Your task to perform on an android device: Open maps Image 0: 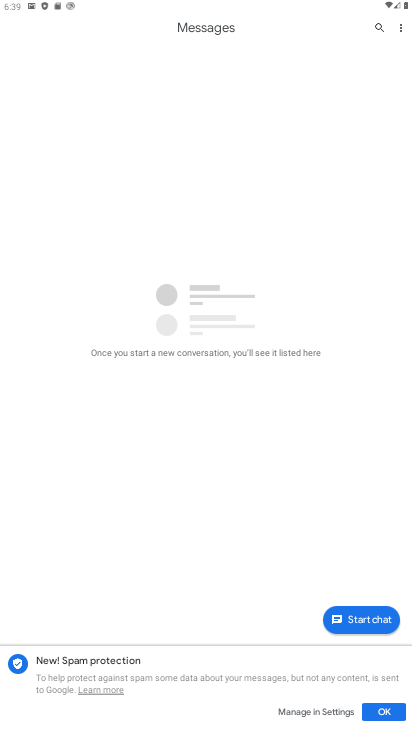
Step 0: press home button
Your task to perform on an android device: Open maps Image 1: 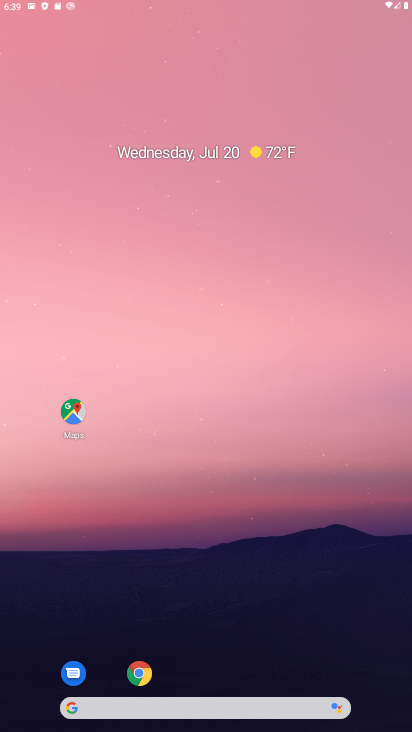
Step 1: drag from (394, 676) to (263, 38)
Your task to perform on an android device: Open maps Image 2: 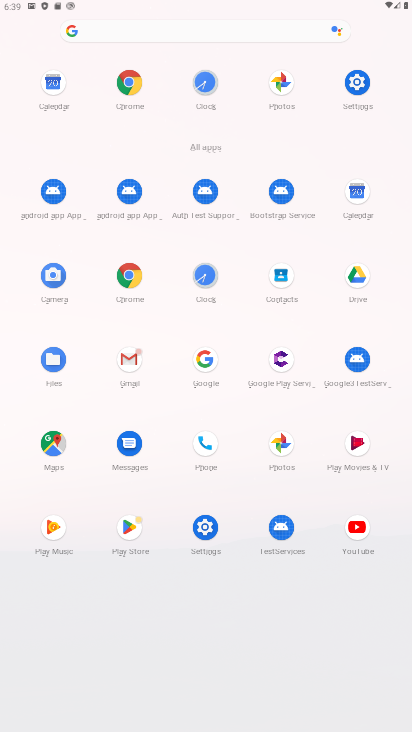
Step 2: click (56, 448)
Your task to perform on an android device: Open maps Image 3: 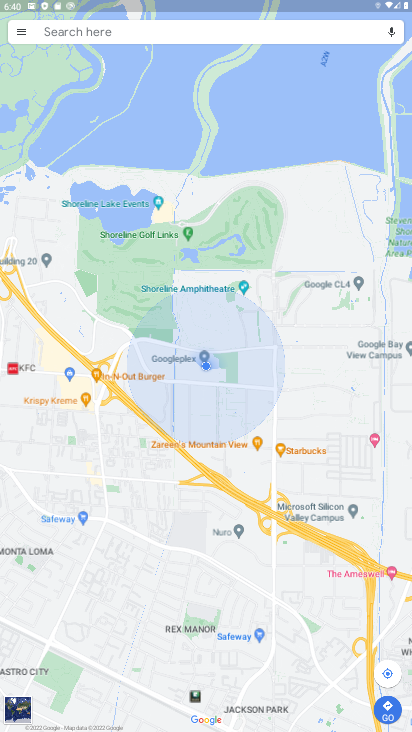
Step 3: task complete